Your task to perform on an android device: Open Google Chrome and open the bookmarks view Image 0: 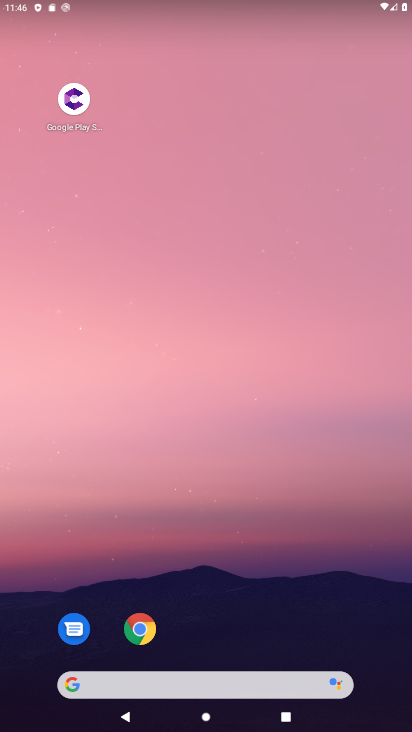
Step 0: click (140, 626)
Your task to perform on an android device: Open Google Chrome and open the bookmarks view Image 1: 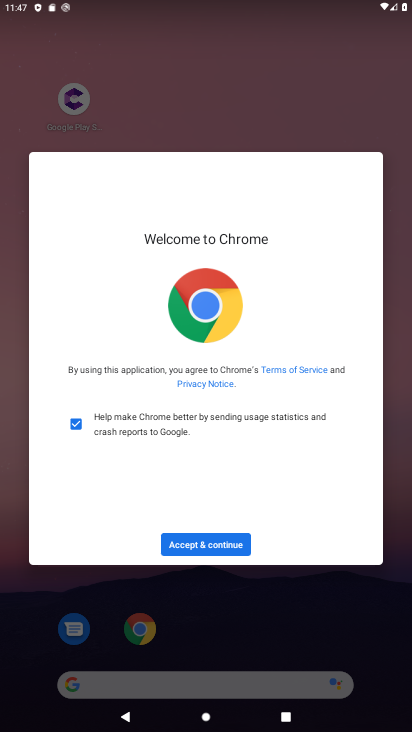
Step 1: click (221, 545)
Your task to perform on an android device: Open Google Chrome and open the bookmarks view Image 2: 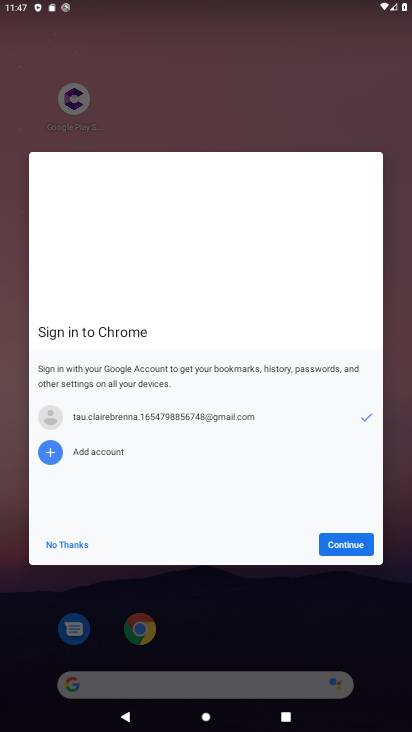
Step 2: click (338, 542)
Your task to perform on an android device: Open Google Chrome and open the bookmarks view Image 3: 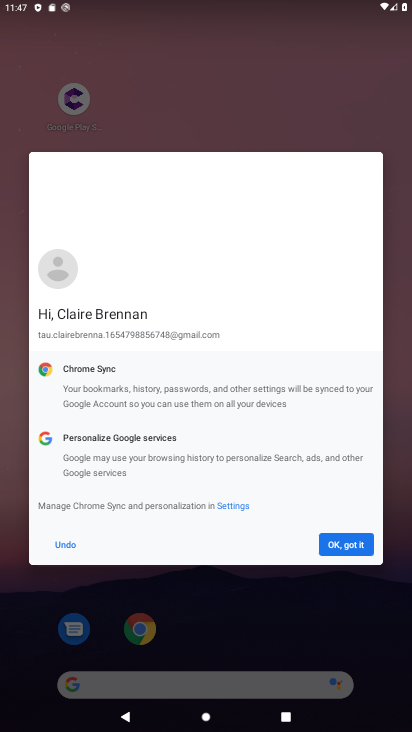
Step 3: click (328, 547)
Your task to perform on an android device: Open Google Chrome and open the bookmarks view Image 4: 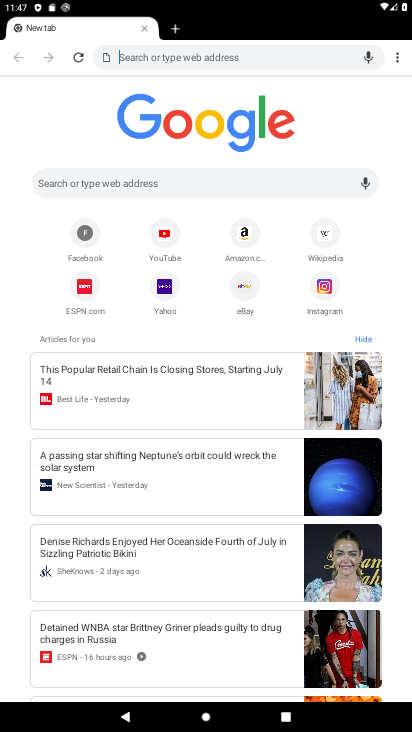
Step 4: click (398, 52)
Your task to perform on an android device: Open Google Chrome and open the bookmarks view Image 5: 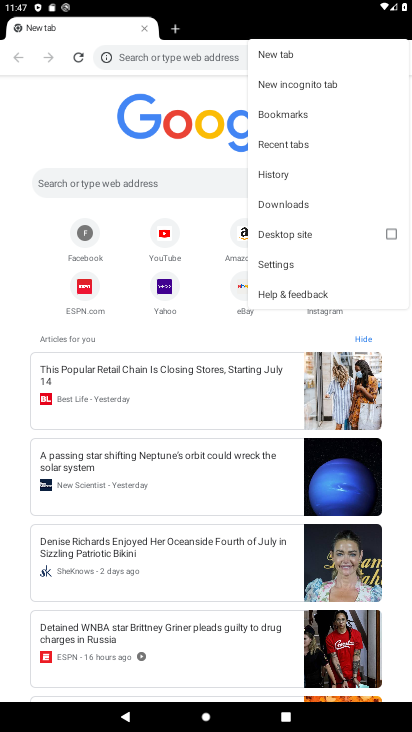
Step 5: click (288, 114)
Your task to perform on an android device: Open Google Chrome and open the bookmarks view Image 6: 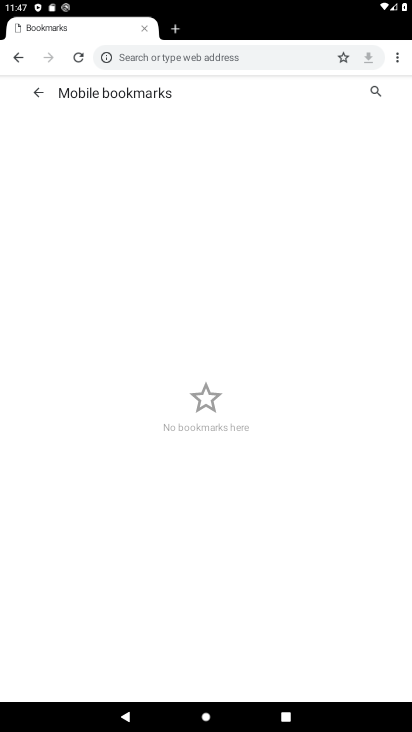
Step 6: task complete